Your task to perform on an android device: toggle notification dots Image 0: 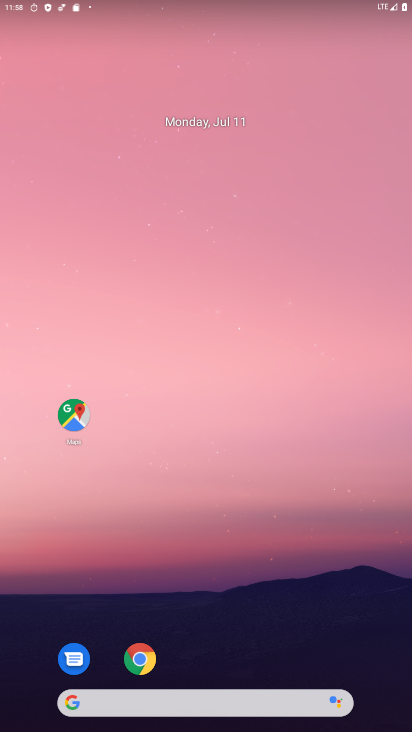
Step 0: drag from (205, 674) to (208, 4)
Your task to perform on an android device: toggle notification dots Image 1: 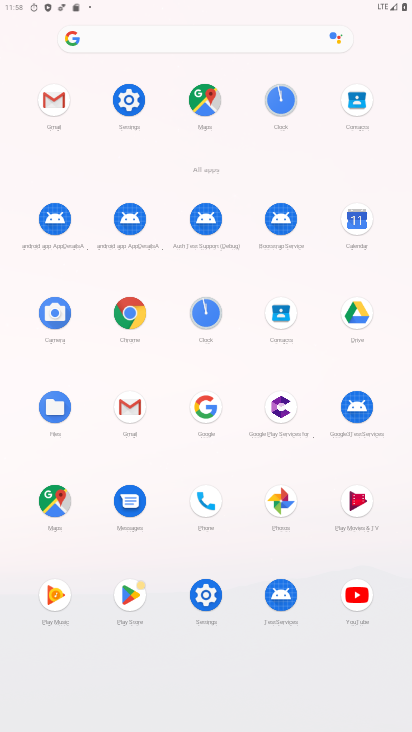
Step 1: click (209, 612)
Your task to perform on an android device: toggle notification dots Image 2: 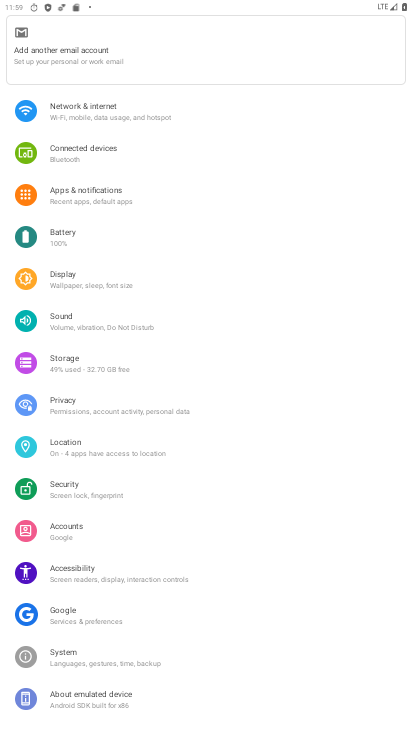
Step 2: click (122, 189)
Your task to perform on an android device: toggle notification dots Image 3: 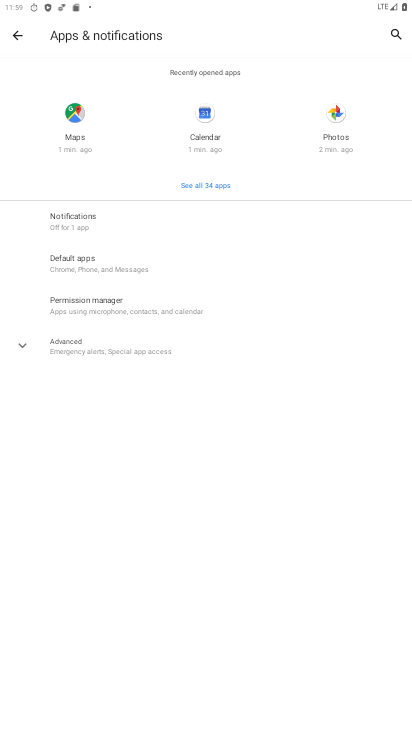
Step 3: click (83, 219)
Your task to perform on an android device: toggle notification dots Image 4: 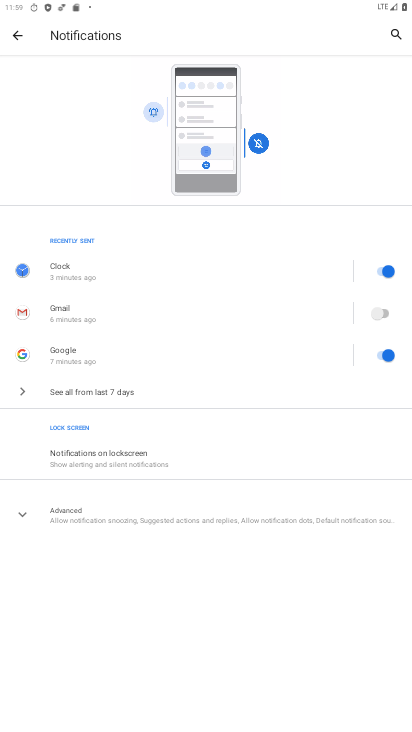
Step 4: task complete